Your task to perform on an android device: Open Maps and search for coffee Image 0: 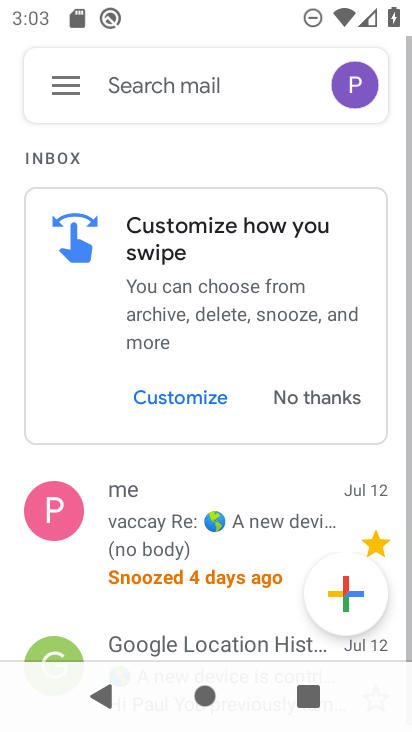
Step 0: press back button
Your task to perform on an android device: Open Maps and search for coffee Image 1: 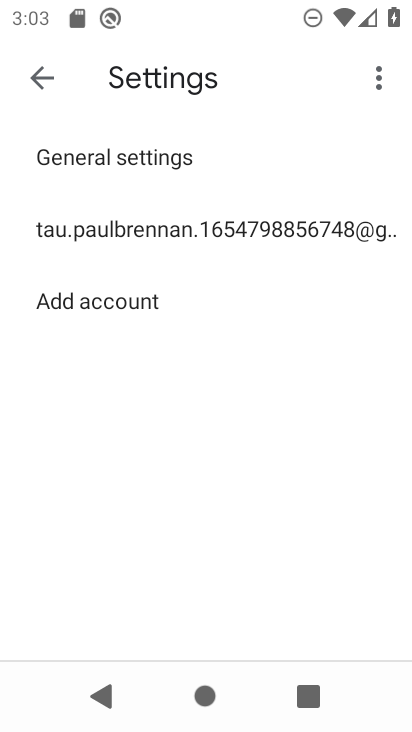
Step 1: press back button
Your task to perform on an android device: Open Maps and search for coffee Image 2: 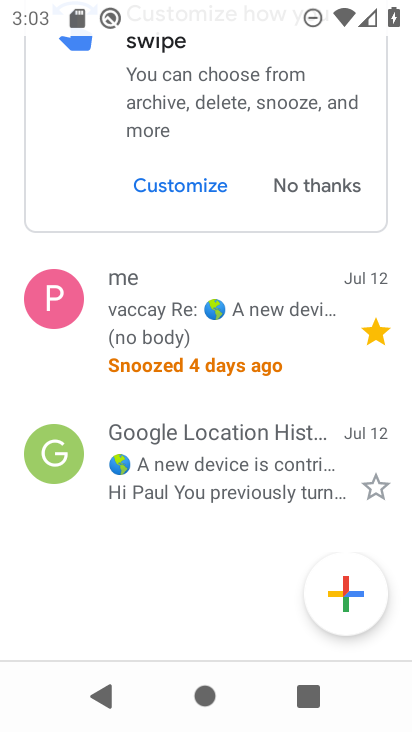
Step 2: press back button
Your task to perform on an android device: Open Maps and search for coffee Image 3: 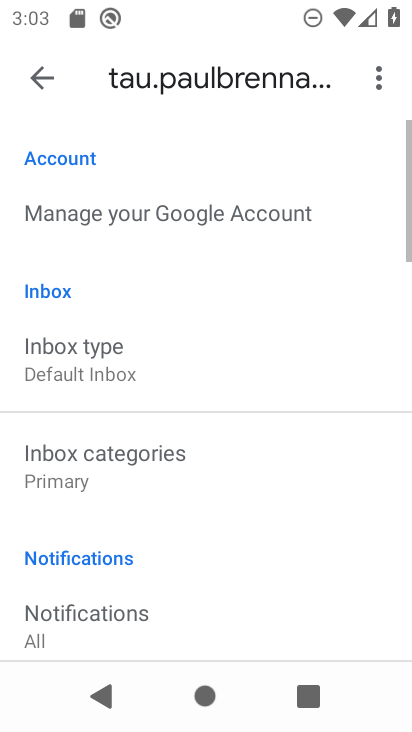
Step 3: press back button
Your task to perform on an android device: Open Maps and search for coffee Image 4: 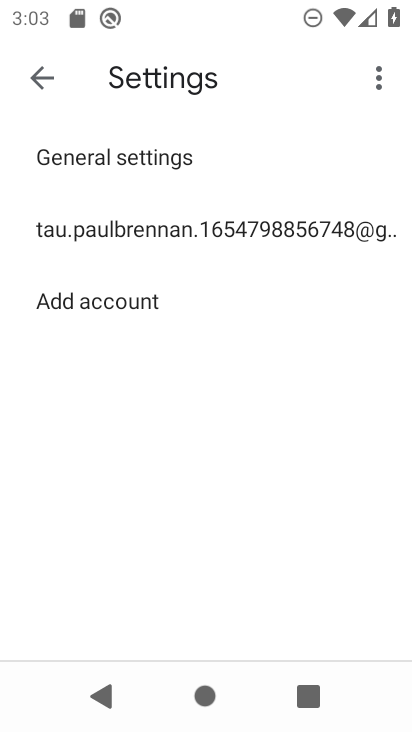
Step 4: press back button
Your task to perform on an android device: Open Maps and search for coffee Image 5: 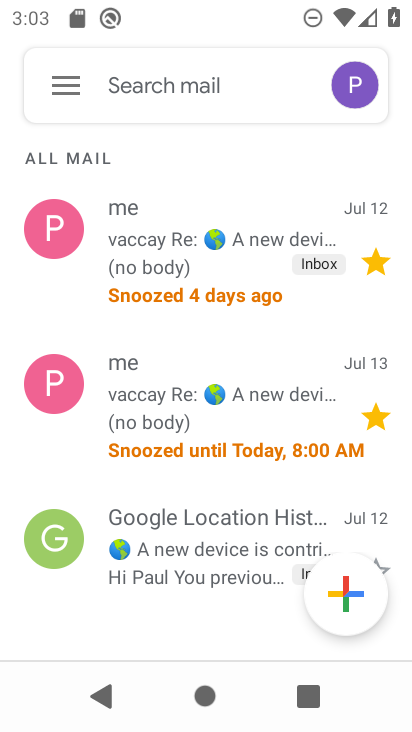
Step 5: press back button
Your task to perform on an android device: Open Maps and search for coffee Image 6: 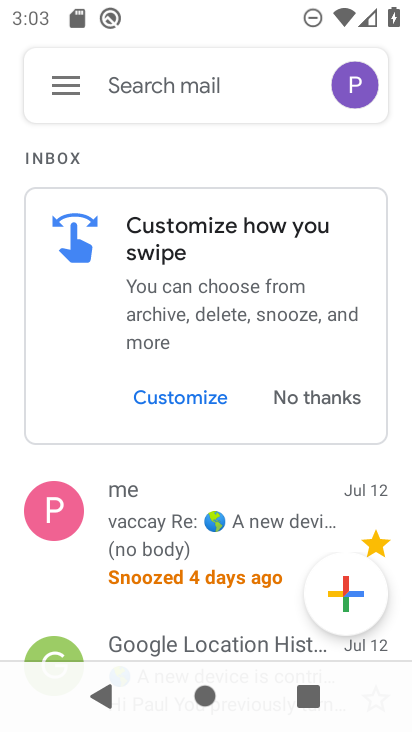
Step 6: press back button
Your task to perform on an android device: Open Maps and search for coffee Image 7: 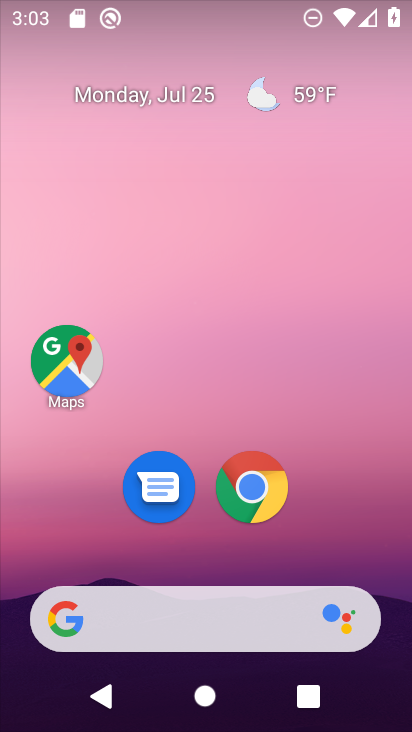
Step 7: click (55, 366)
Your task to perform on an android device: Open Maps and search for coffee Image 8: 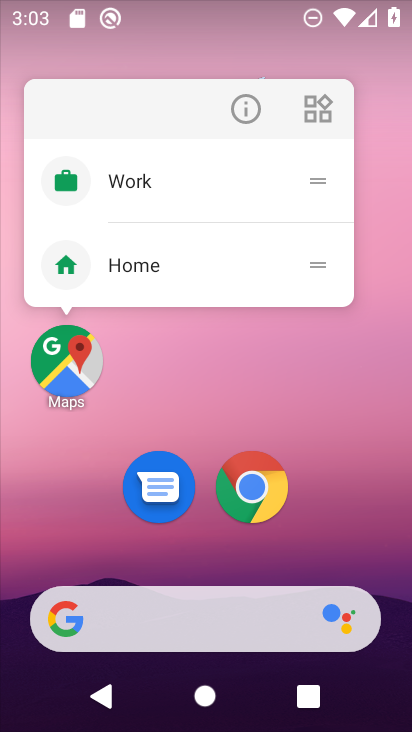
Step 8: click (63, 356)
Your task to perform on an android device: Open Maps and search for coffee Image 9: 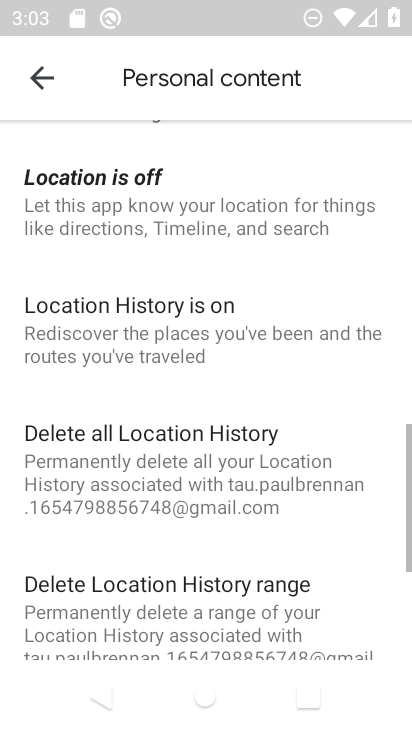
Step 9: click (28, 68)
Your task to perform on an android device: Open Maps and search for coffee Image 10: 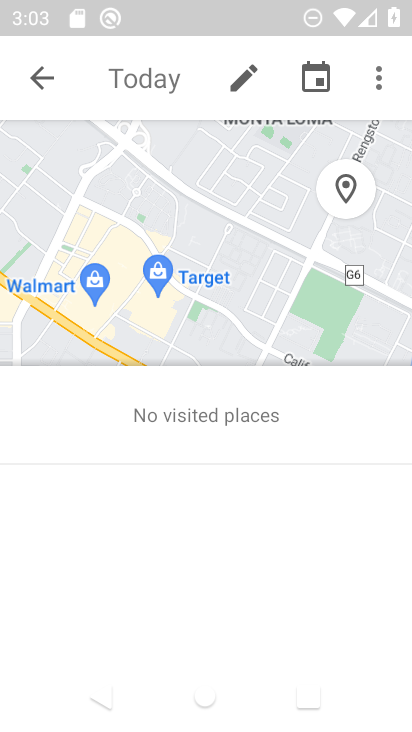
Step 10: click (31, 71)
Your task to perform on an android device: Open Maps and search for coffee Image 11: 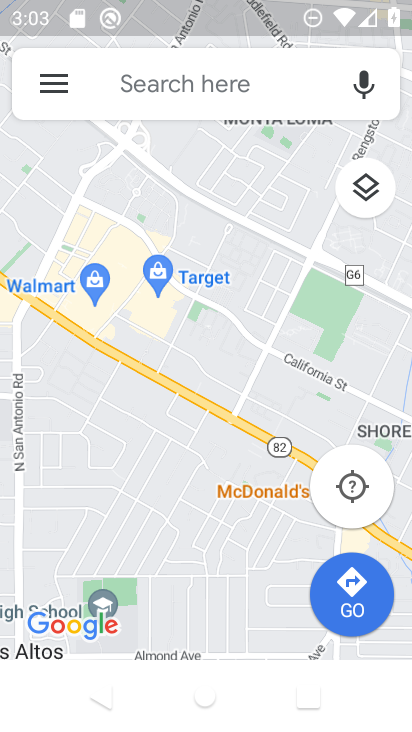
Step 11: click (205, 86)
Your task to perform on an android device: Open Maps and search for coffee Image 12: 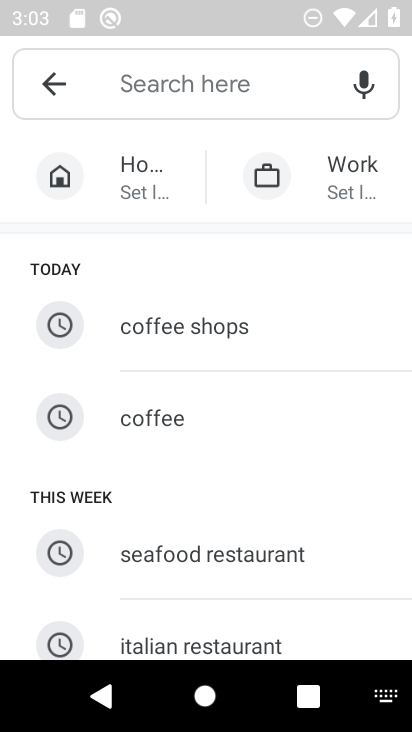
Step 12: click (215, 340)
Your task to perform on an android device: Open Maps and search for coffee Image 13: 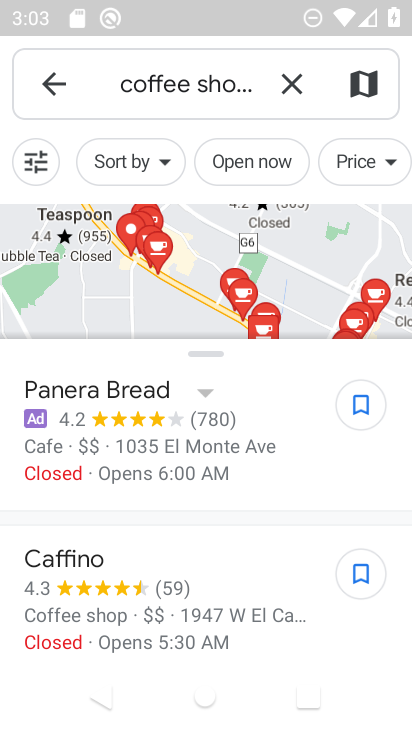
Step 13: task complete